Your task to perform on an android device: star an email in the gmail app Image 0: 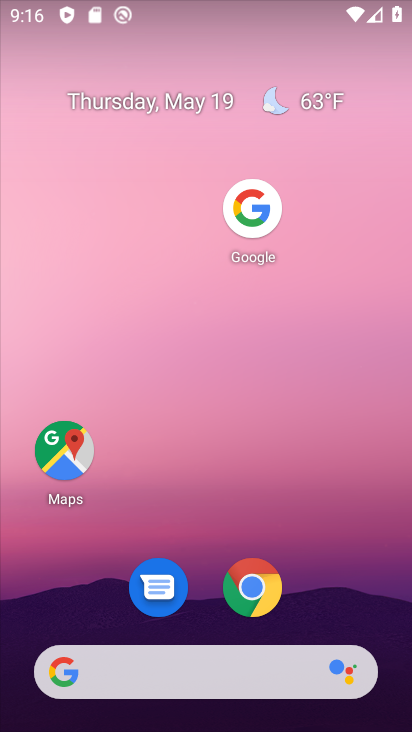
Step 0: drag from (189, 643) to (100, 26)
Your task to perform on an android device: star an email in the gmail app Image 1: 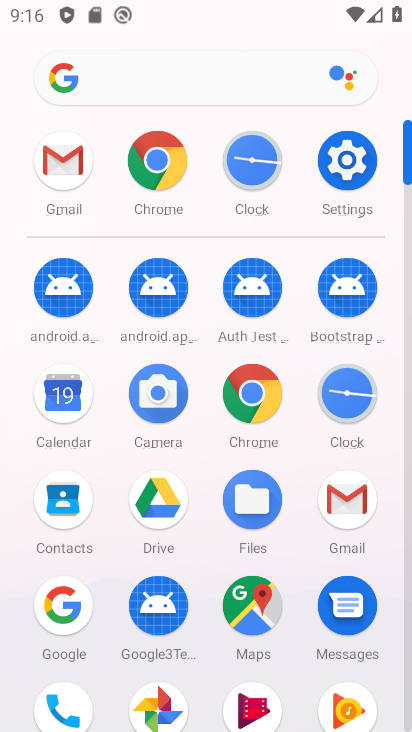
Step 1: click (365, 512)
Your task to perform on an android device: star an email in the gmail app Image 2: 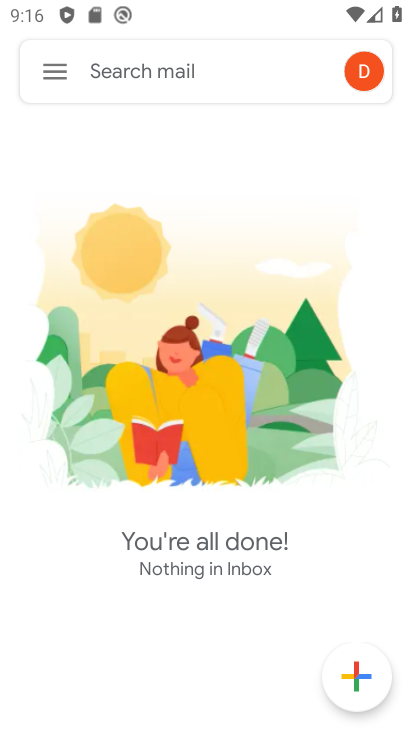
Step 2: click (51, 82)
Your task to perform on an android device: star an email in the gmail app Image 3: 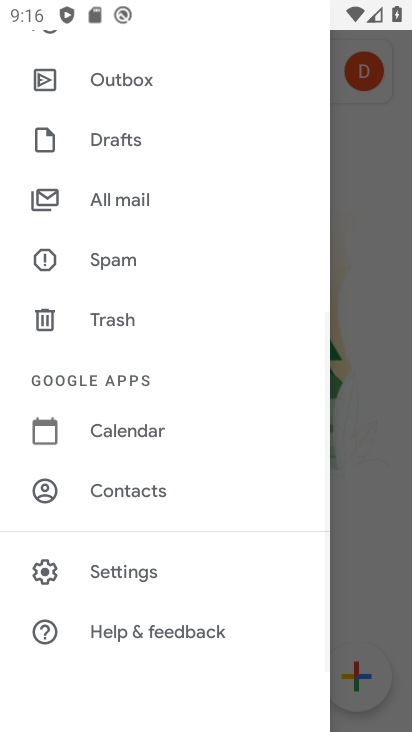
Step 3: click (121, 204)
Your task to perform on an android device: star an email in the gmail app Image 4: 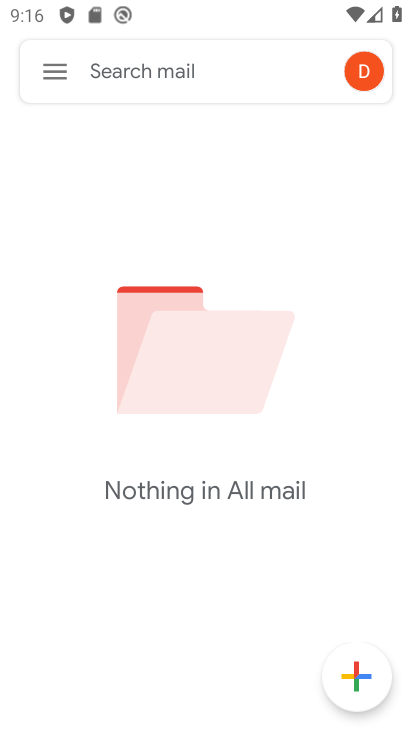
Step 4: task complete